Your task to perform on an android device: Turn off the flashlight Image 0: 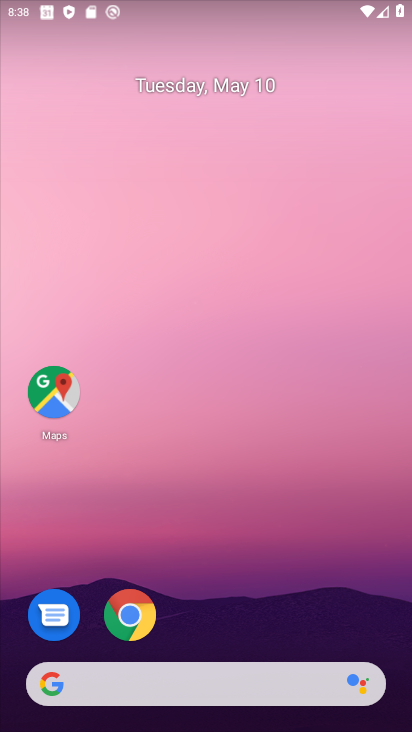
Step 0: drag from (193, 557) to (198, 132)
Your task to perform on an android device: Turn off the flashlight Image 1: 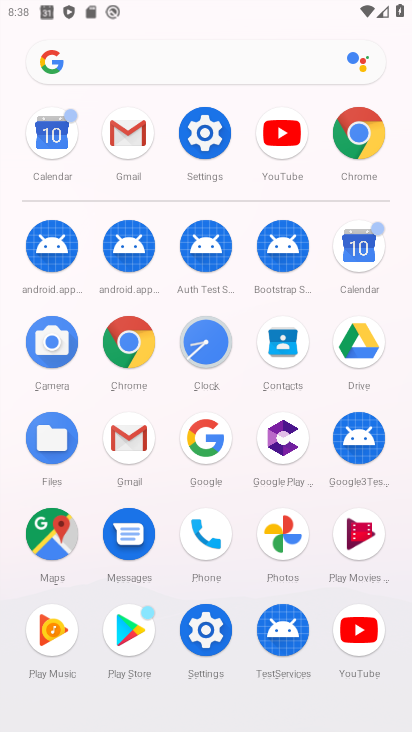
Step 1: click (204, 140)
Your task to perform on an android device: Turn off the flashlight Image 2: 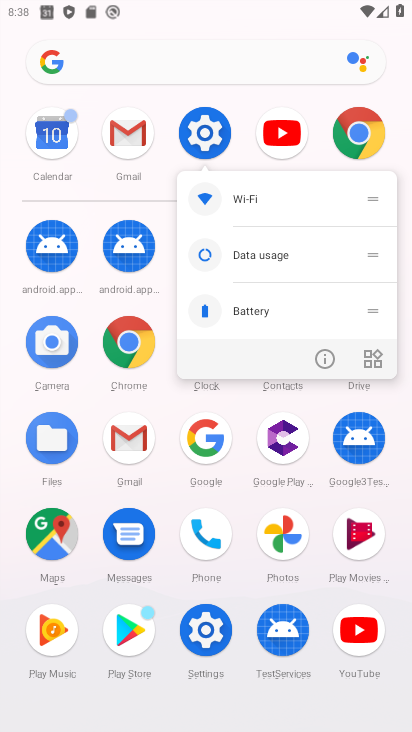
Step 2: click (321, 359)
Your task to perform on an android device: Turn off the flashlight Image 3: 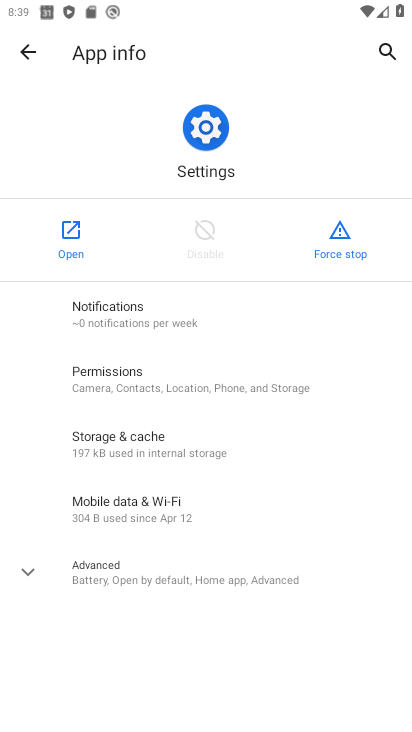
Step 3: click (65, 229)
Your task to perform on an android device: Turn off the flashlight Image 4: 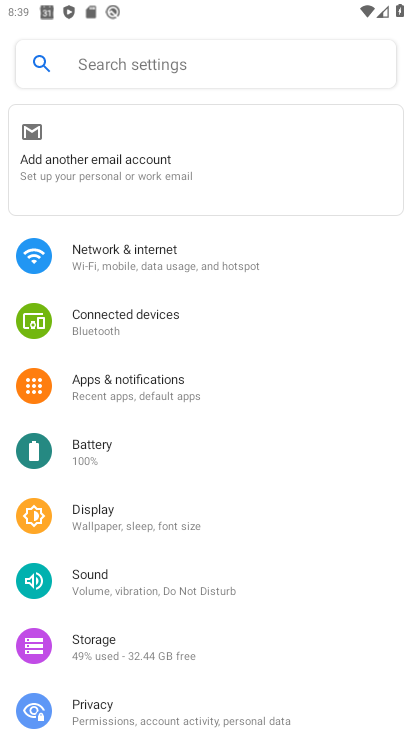
Step 4: click (138, 69)
Your task to perform on an android device: Turn off the flashlight Image 5: 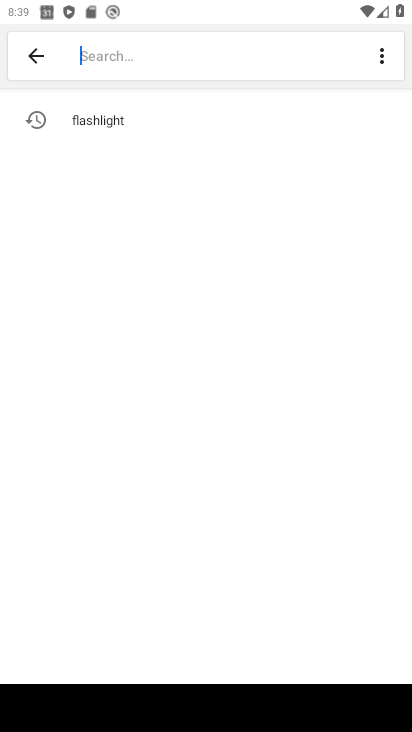
Step 5: click (81, 139)
Your task to perform on an android device: Turn off the flashlight Image 6: 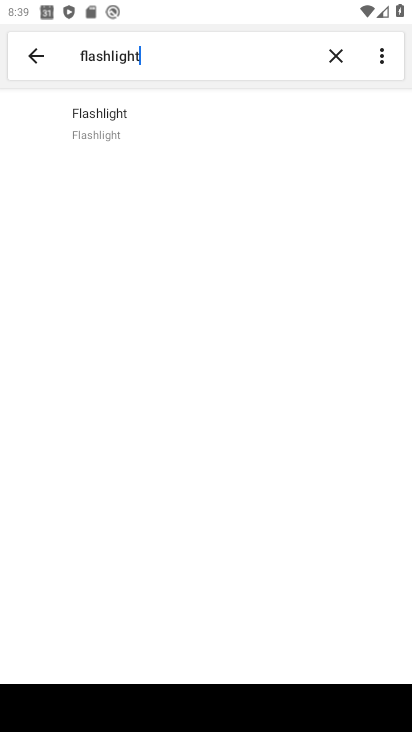
Step 6: click (135, 134)
Your task to perform on an android device: Turn off the flashlight Image 7: 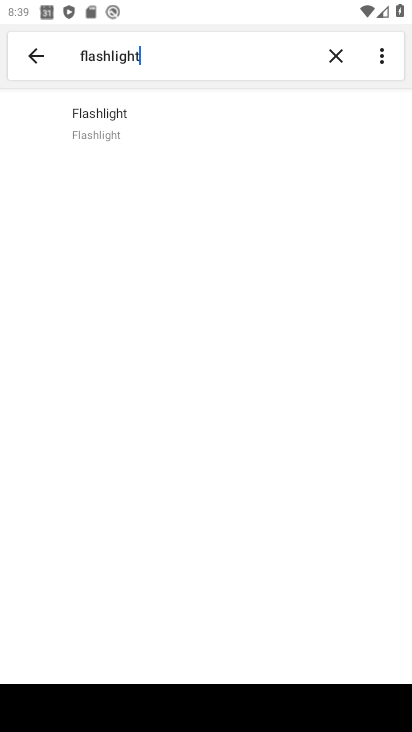
Step 7: task complete